Your task to perform on an android device: Open Amazon Image 0: 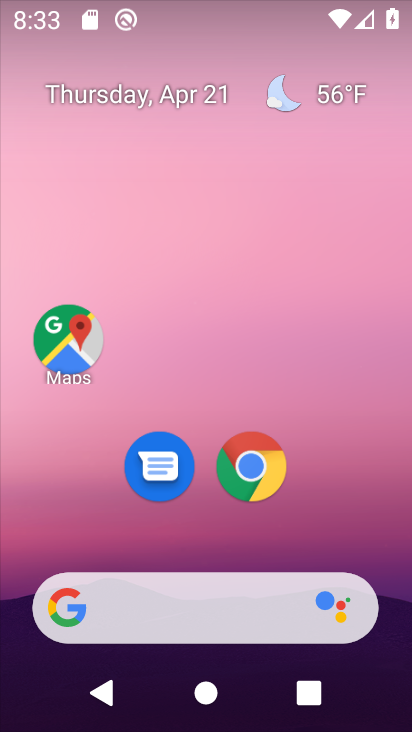
Step 0: click (256, 474)
Your task to perform on an android device: Open Amazon Image 1: 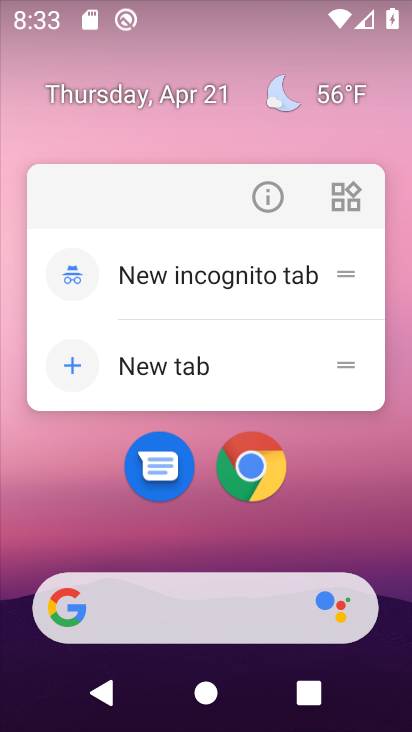
Step 1: click (252, 462)
Your task to perform on an android device: Open Amazon Image 2: 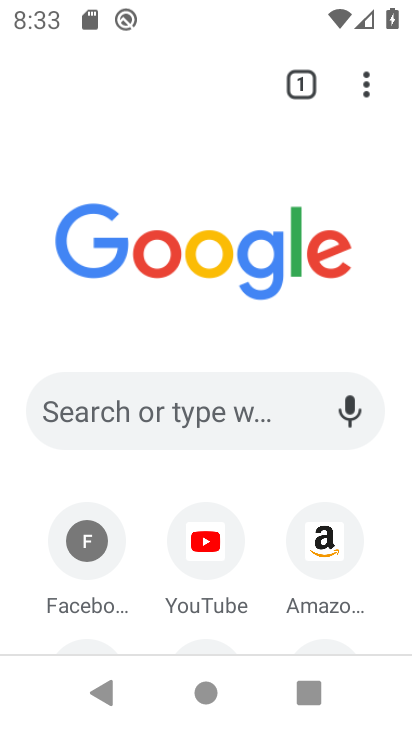
Step 2: click (323, 553)
Your task to perform on an android device: Open Amazon Image 3: 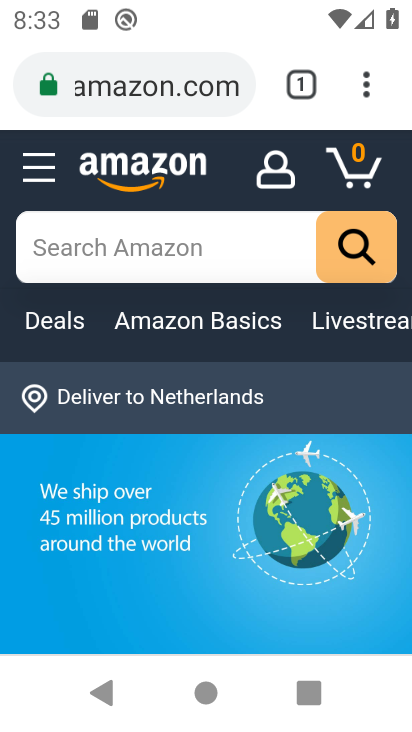
Step 3: task complete